Your task to perform on an android device: turn on the 24-hour format for clock Image 0: 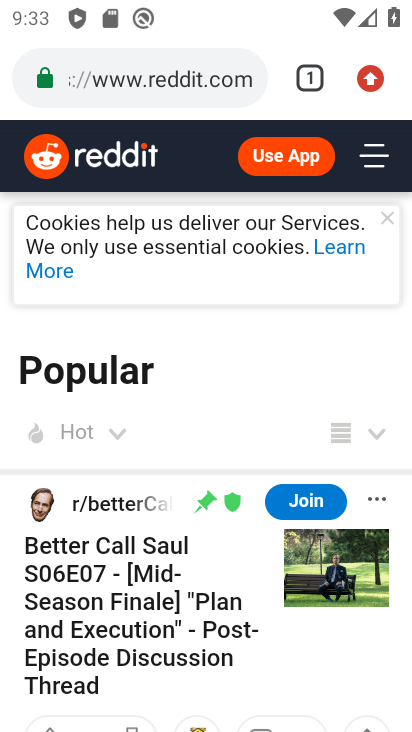
Step 0: press home button
Your task to perform on an android device: turn on the 24-hour format for clock Image 1: 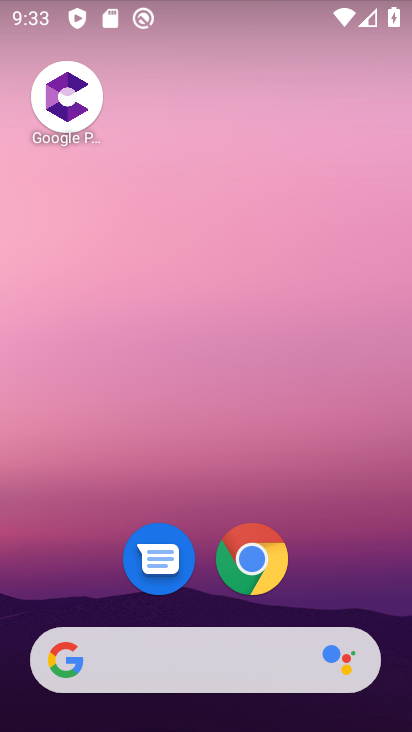
Step 1: drag from (84, 626) to (191, 75)
Your task to perform on an android device: turn on the 24-hour format for clock Image 2: 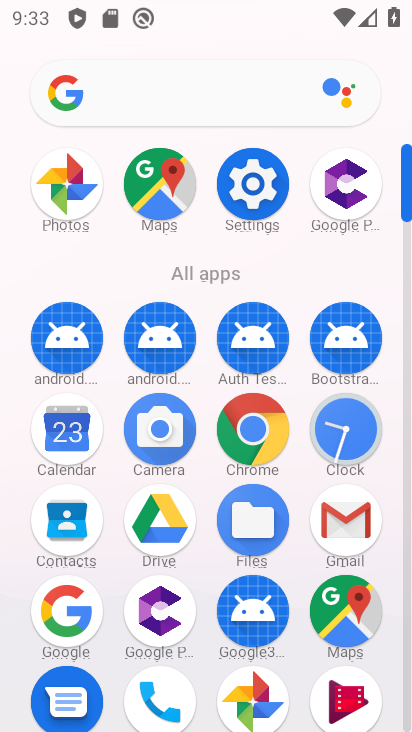
Step 2: click (371, 451)
Your task to perform on an android device: turn on the 24-hour format for clock Image 3: 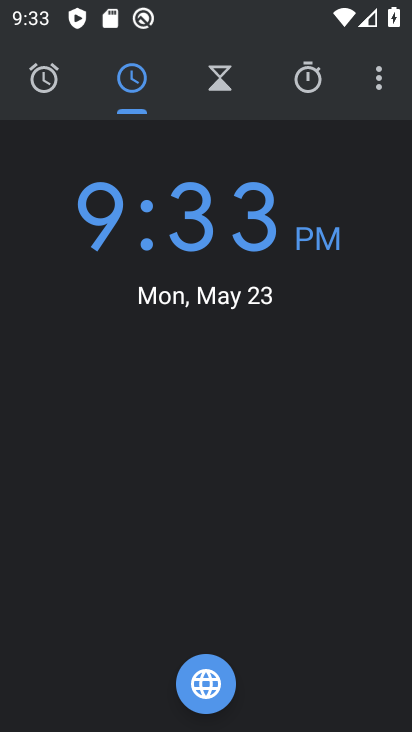
Step 3: click (391, 58)
Your task to perform on an android device: turn on the 24-hour format for clock Image 4: 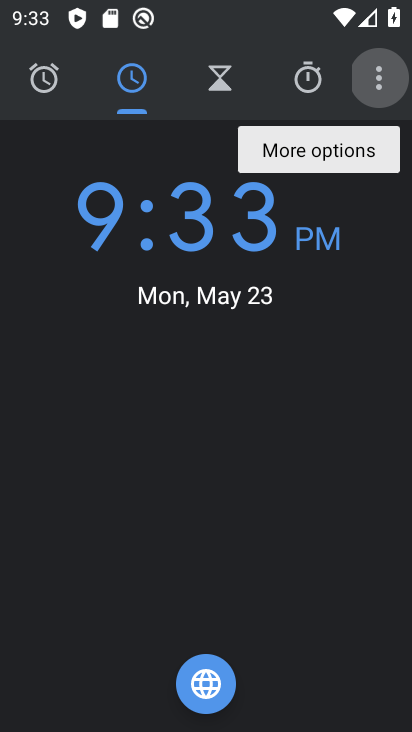
Step 4: click (389, 69)
Your task to perform on an android device: turn on the 24-hour format for clock Image 5: 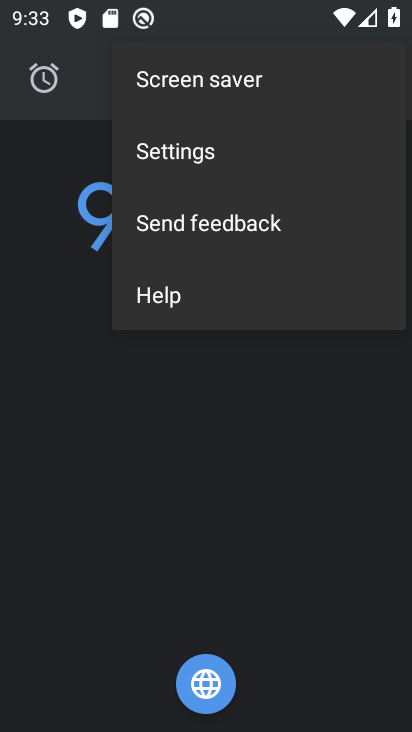
Step 5: click (250, 159)
Your task to perform on an android device: turn on the 24-hour format for clock Image 6: 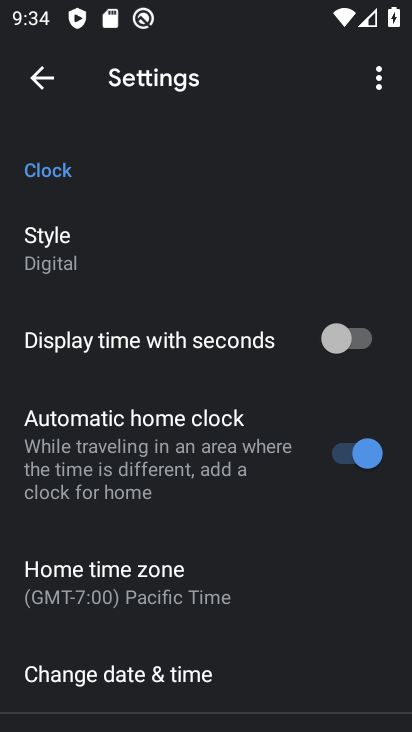
Step 6: drag from (192, 679) to (225, 476)
Your task to perform on an android device: turn on the 24-hour format for clock Image 7: 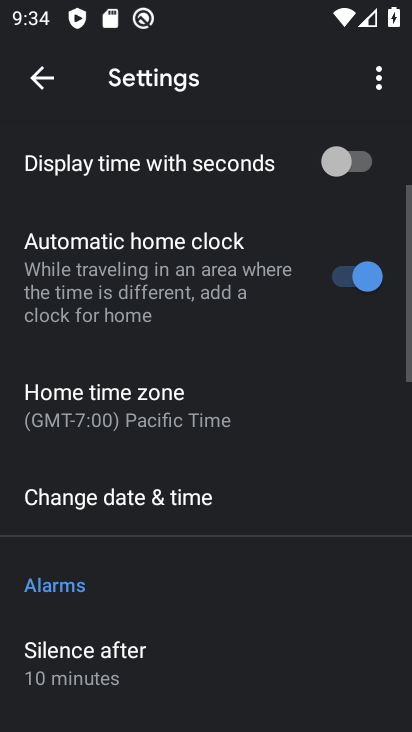
Step 7: click (232, 495)
Your task to perform on an android device: turn on the 24-hour format for clock Image 8: 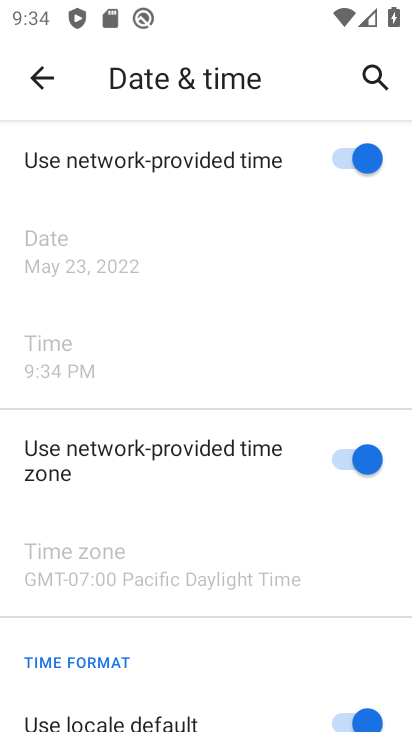
Step 8: drag from (47, 619) to (175, 139)
Your task to perform on an android device: turn on the 24-hour format for clock Image 9: 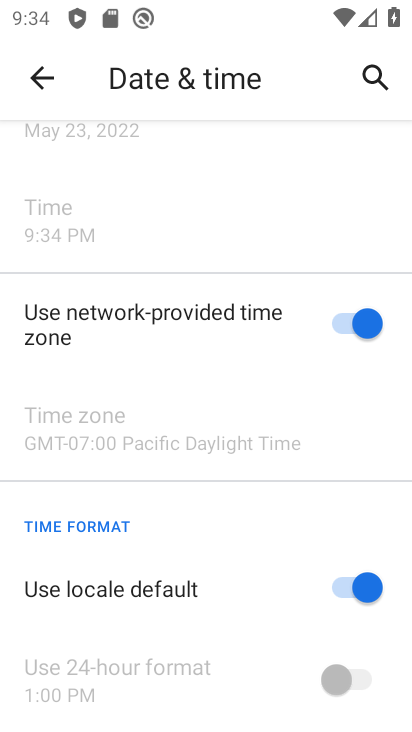
Step 9: click (351, 571)
Your task to perform on an android device: turn on the 24-hour format for clock Image 10: 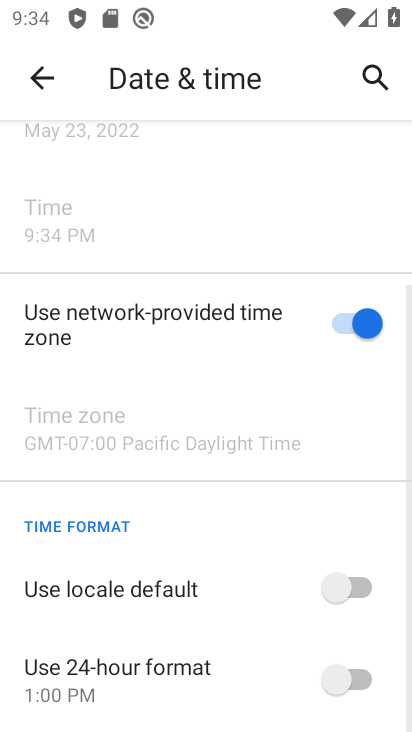
Step 10: click (357, 678)
Your task to perform on an android device: turn on the 24-hour format for clock Image 11: 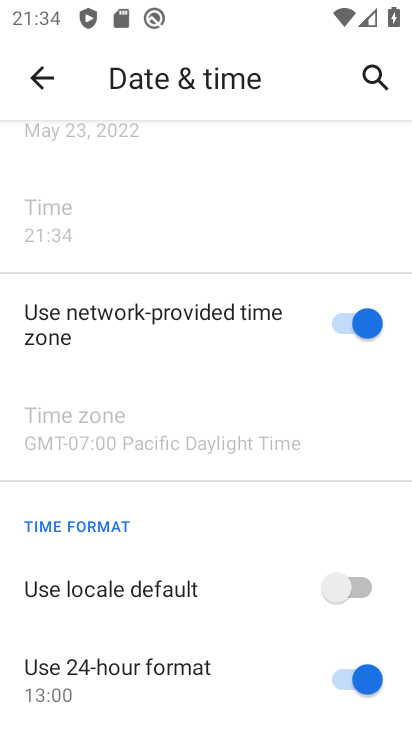
Step 11: task complete